Your task to perform on an android device: allow notifications from all sites in the chrome app Image 0: 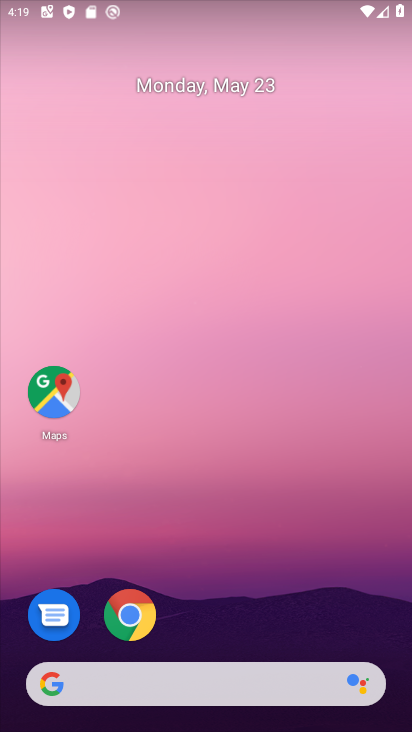
Step 0: click (125, 606)
Your task to perform on an android device: allow notifications from all sites in the chrome app Image 1: 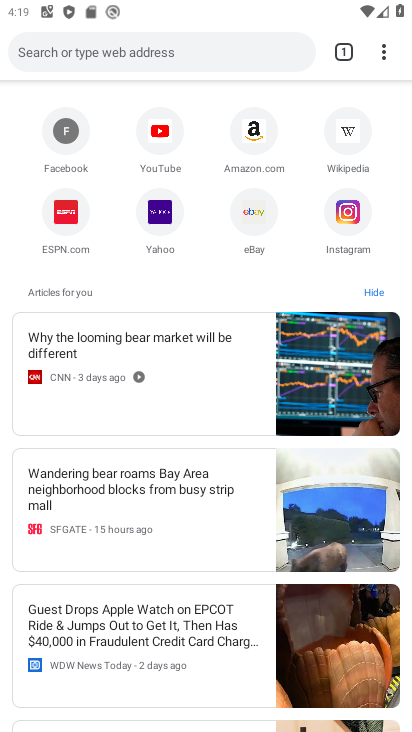
Step 1: drag from (381, 55) to (240, 444)
Your task to perform on an android device: allow notifications from all sites in the chrome app Image 2: 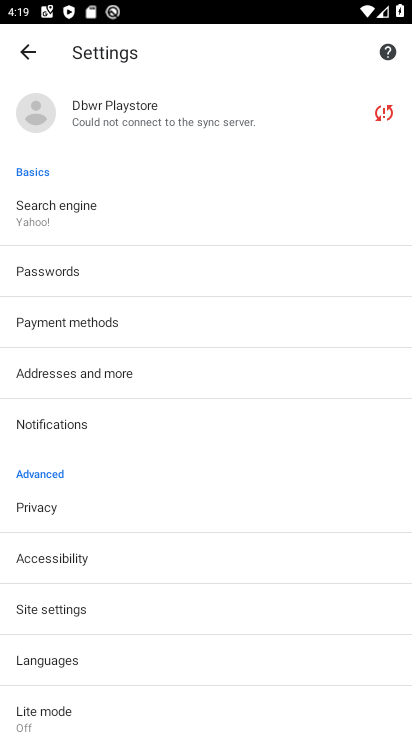
Step 2: click (57, 429)
Your task to perform on an android device: allow notifications from all sites in the chrome app Image 3: 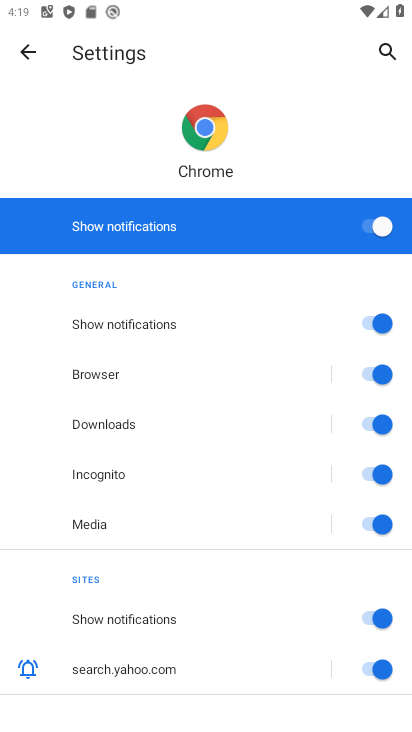
Step 3: task complete